Your task to perform on an android device: toggle notification dots Image 0: 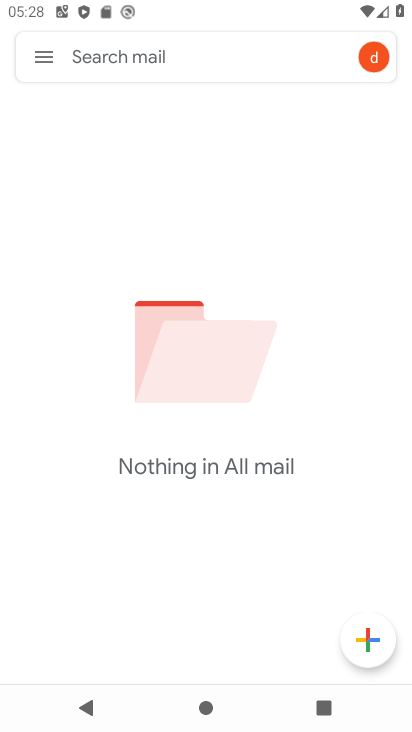
Step 0: click (37, 43)
Your task to perform on an android device: toggle notification dots Image 1: 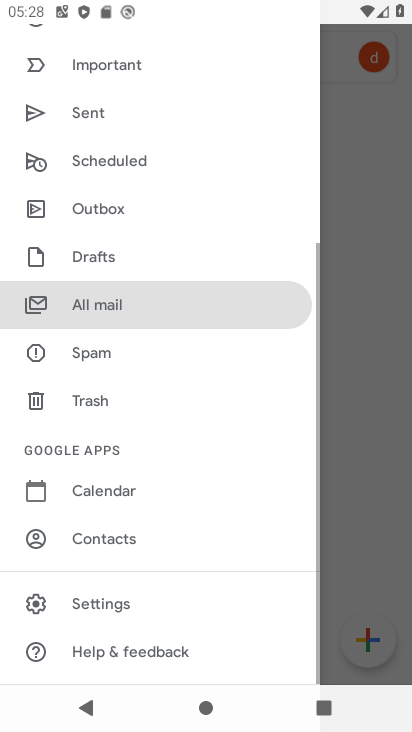
Step 1: drag from (186, 595) to (191, 185)
Your task to perform on an android device: toggle notification dots Image 2: 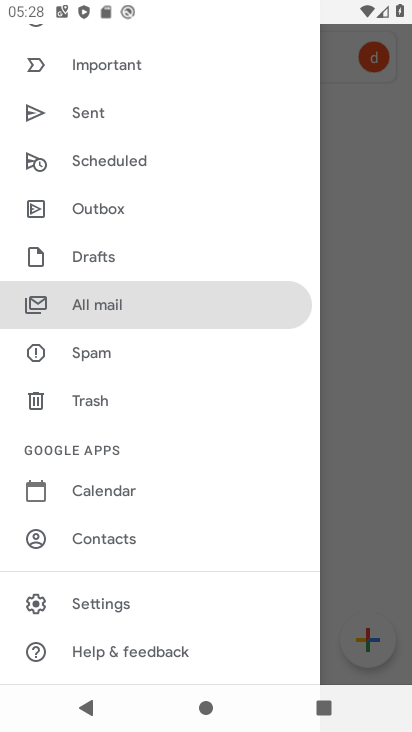
Step 2: click (110, 611)
Your task to perform on an android device: toggle notification dots Image 3: 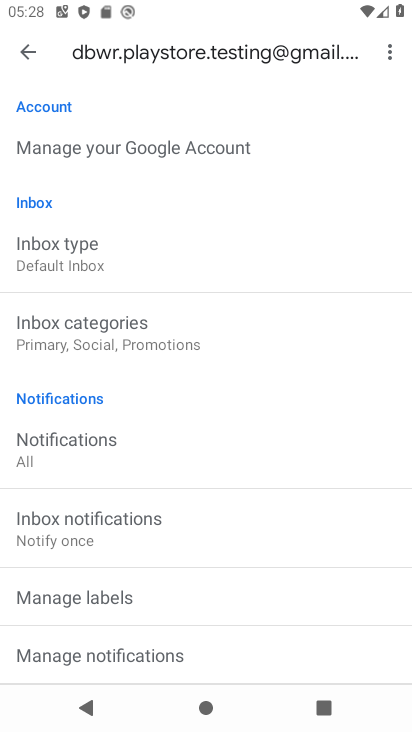
Step 3: drag from (202, 623) to (257, 238)
Your task to perform on an android device: toggle notification dots Image 4: 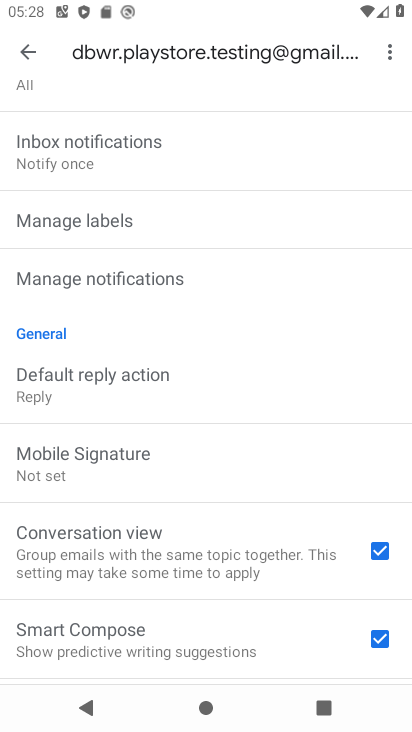
Step 4: drag from (176, 573) to (246, 189)
Your task to perform on an android device: toggle notification dots Image 5: 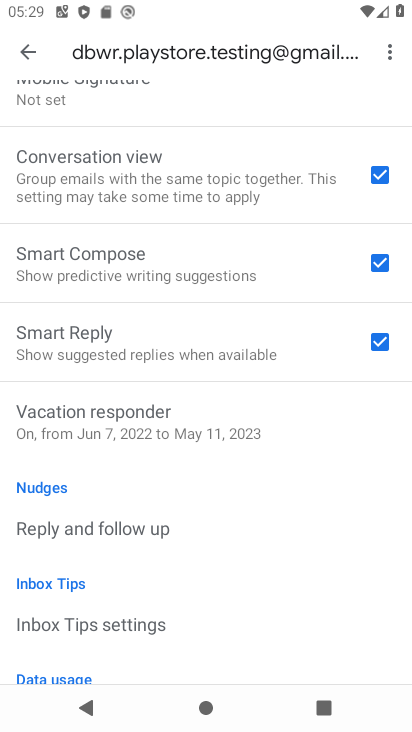
Step 5: drag from (203, 589) to (204, 137)
Your task to perform on an android device: toggle notification dots Image 6: 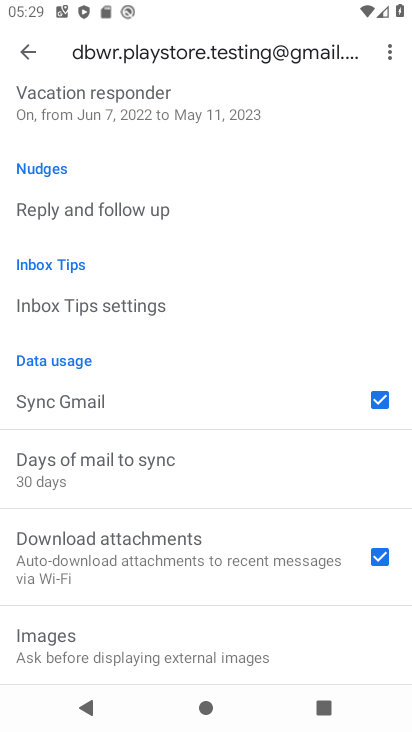
Step 6: drag from (157, 565) to (184, 77)
Your task to perform on an android device: toggle notification dots Image 7: 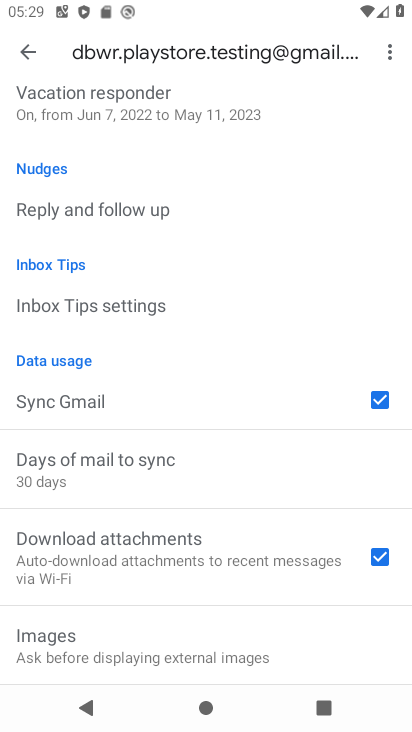
Step 7: drag from (185, 219) to (185, 607)
Your task to perform on an android device: toggle notification dots Image 8: 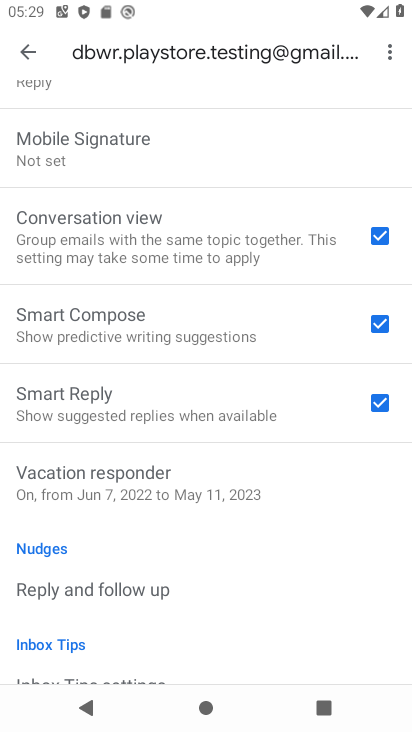
Step 8: drag from (185, 203) to (172, 592)
Your task to perform on an android device: toggle notification dots Image 9: 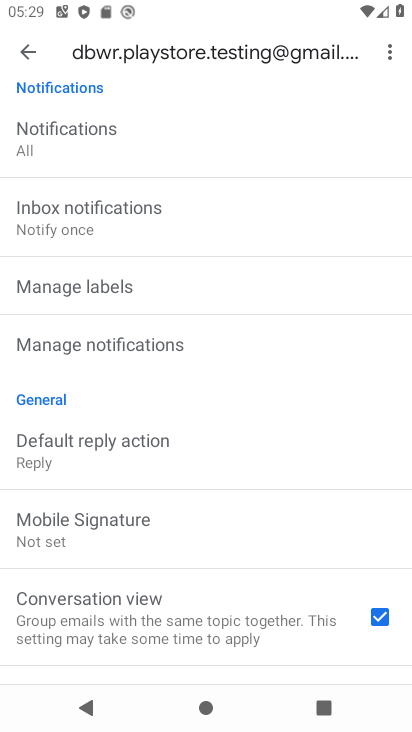
Step 9: click (143, 338)
Your task to perform on an android device: toggle notification dots Image 10: 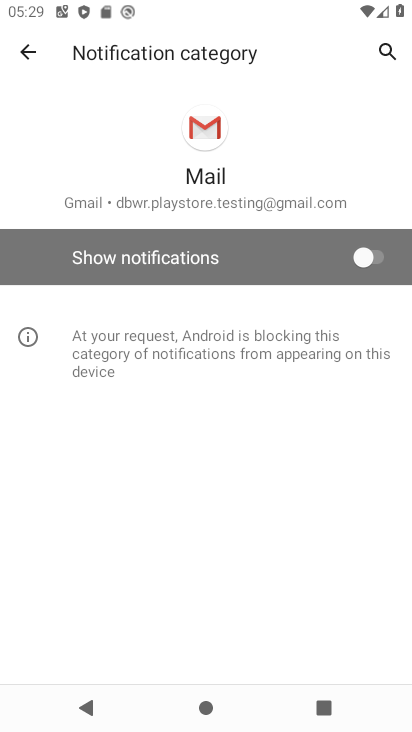
Step 10: click (40, 51)
Your task to perform on an android device: toggle notification dots Image 11: 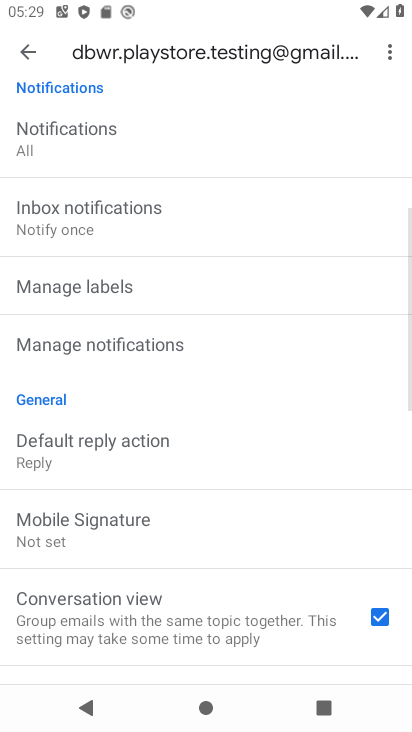
Step 11: drag from (191, 228) to (210, 570)
Your task to perform on an android device: toggle notification dots Image 12: 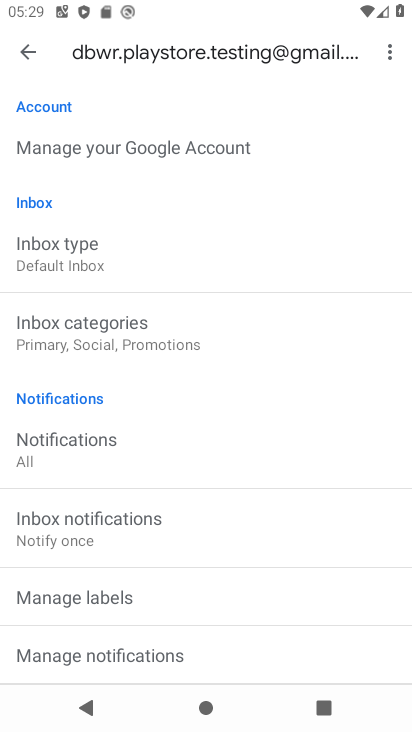
Step 12: drag from (148, 218) to (181, 582)
Your task to perform on an android device: toggle notification dots Image 13: 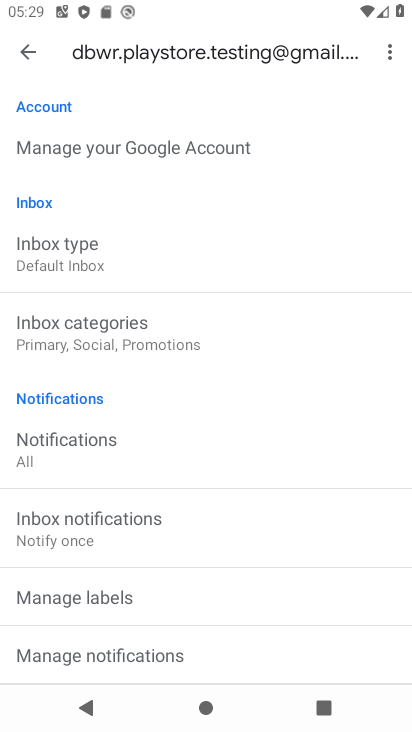
Step 13: drag from (210, 600) to (222, 181)
Your task to perform on an android device: toggle notification dots Image 14: 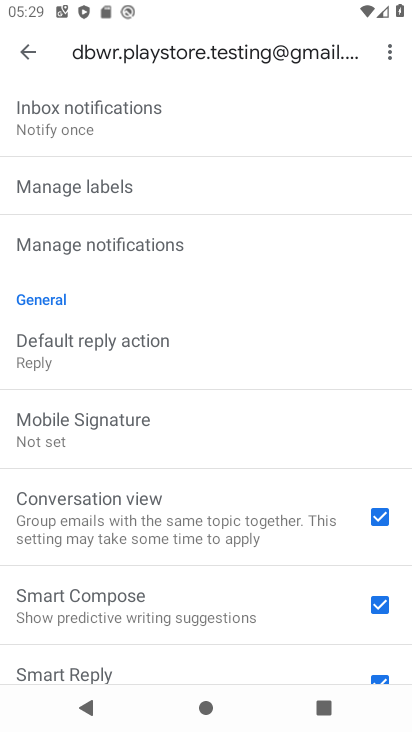
Step 14: click (138, 246)
Your task to perform on an android device: toggle notification dots Image 15: 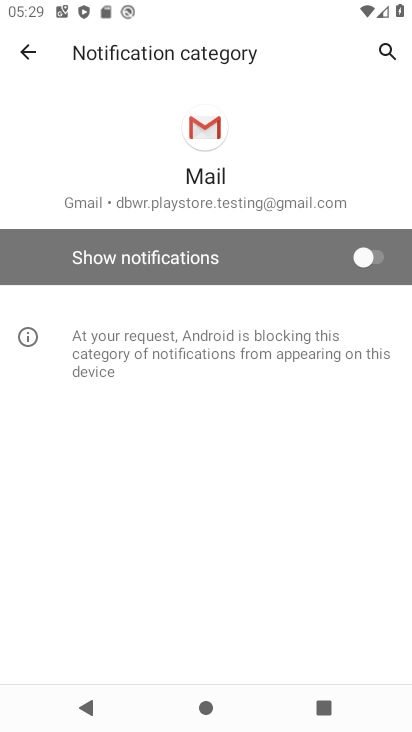
Step 15: click (371, 251)
Your task to perform on an android device: toggle notification dots Image 16: 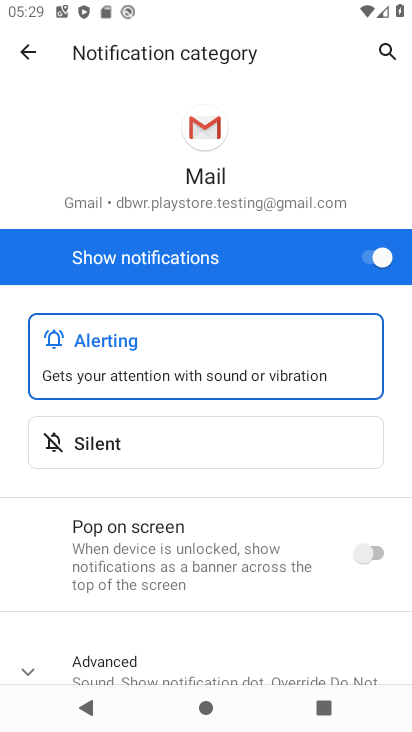
Step 16: task complete